Your task to perform on an android device: find which apps use the phone's location Image 0: 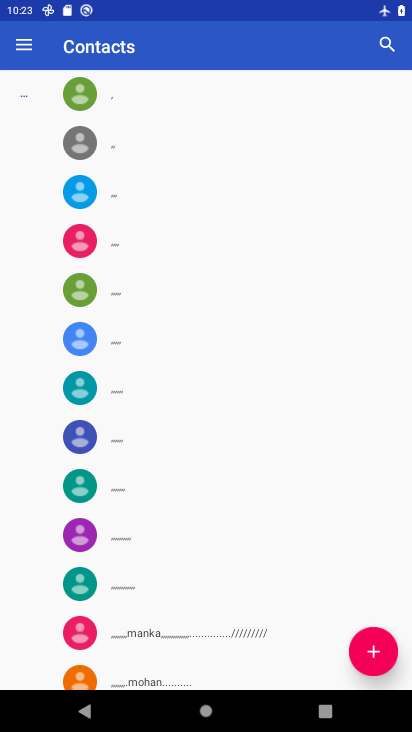
Step 0: press back button
Your task to perform on an android device: find which apps use the phone's location Image 1: 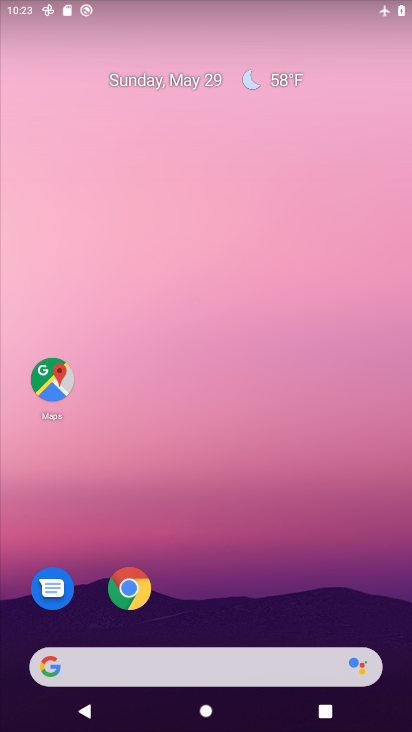
Step 1: drag from (209, 503) to (161, 104)
Your task to perform on an android device: find which apps use the phone's location Image 2: 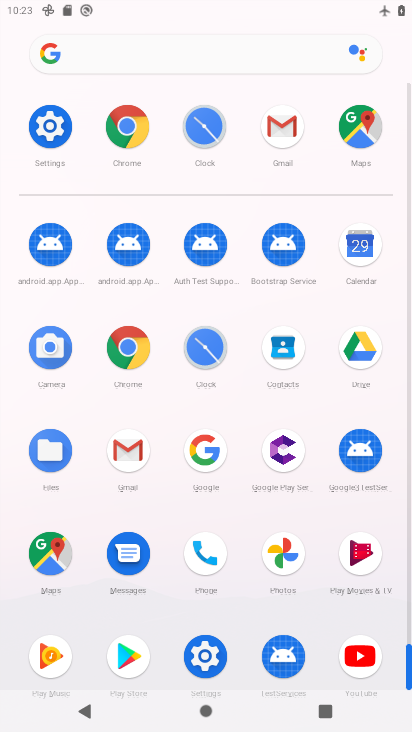
Step 2: click (212, 654)
Your task to perform on an android device: find which apps use the phone's location Image 3: 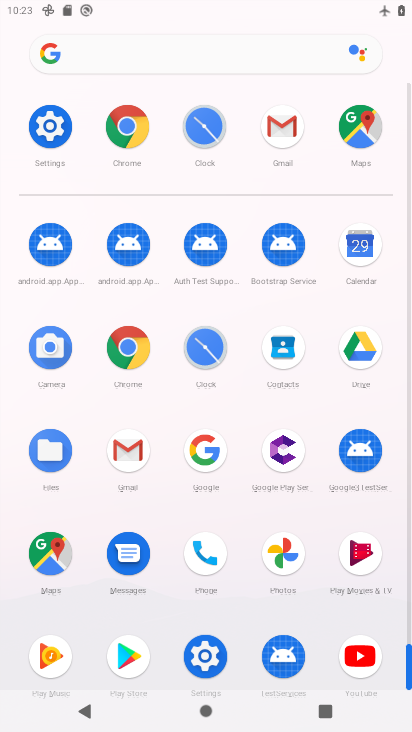
Step 3: click (212, 654)
Your task to perform on an android device: find which apps use the phone's location Image 4: 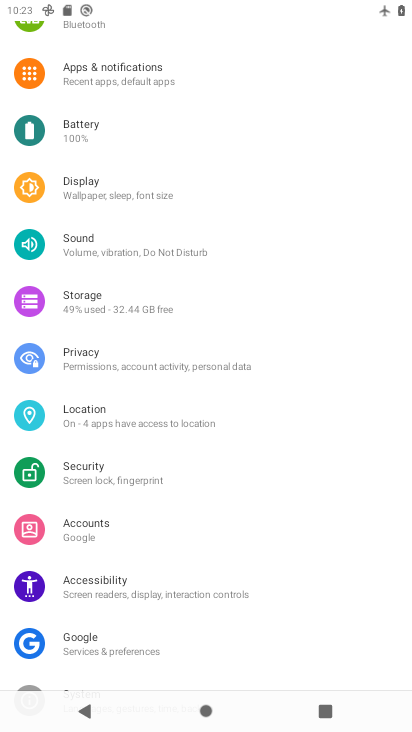
Step 4: click (212, 654)
Your task to perform on an android device: find which apps use the phone's location Image 5: 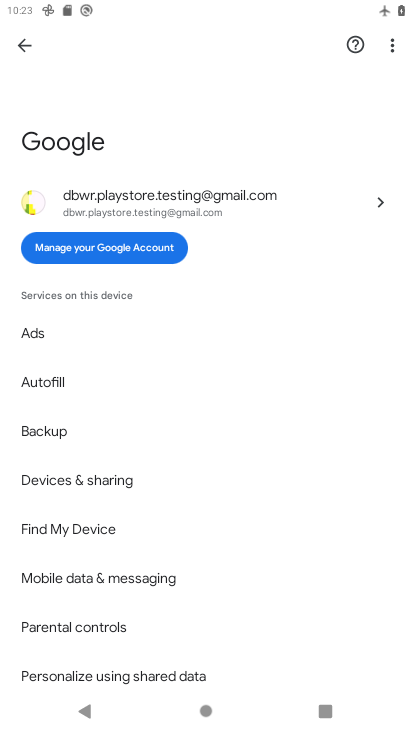
Step 5: press back button
Your task to perform on an android device: find which apps use the phone's location Image 6: 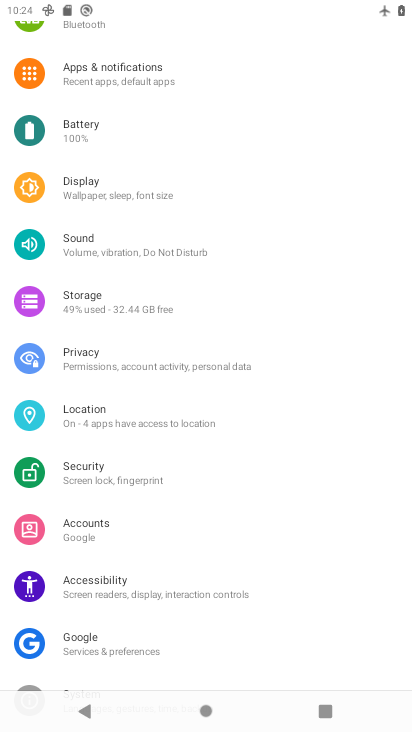
Step 6: click (79, 424)
Your task to perform on an android device: find which apps use the phone's location Image 7: 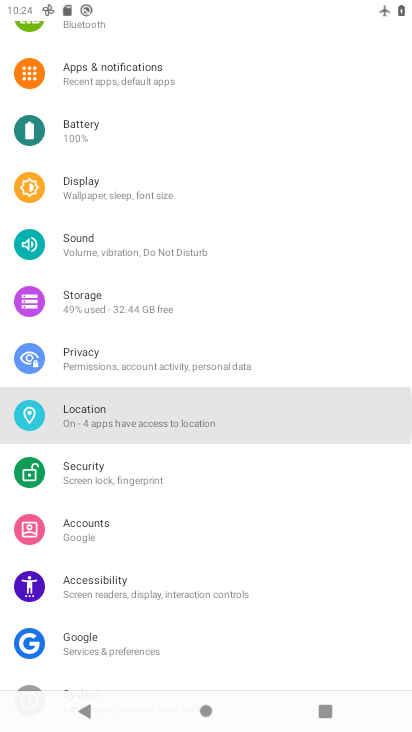
Step 7: click (83, 416)
Your task to perform on an android device: find which apps use the phone's location Image 8: 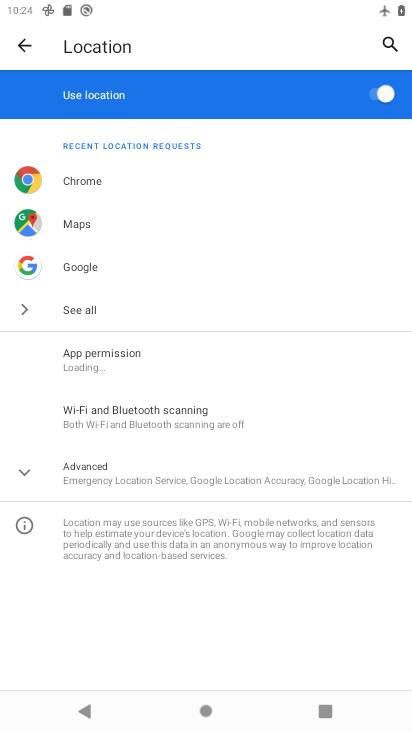
Step 8: click (83, 351)
Your task to perform on an android device: find which apps use the phone's location Image 9: 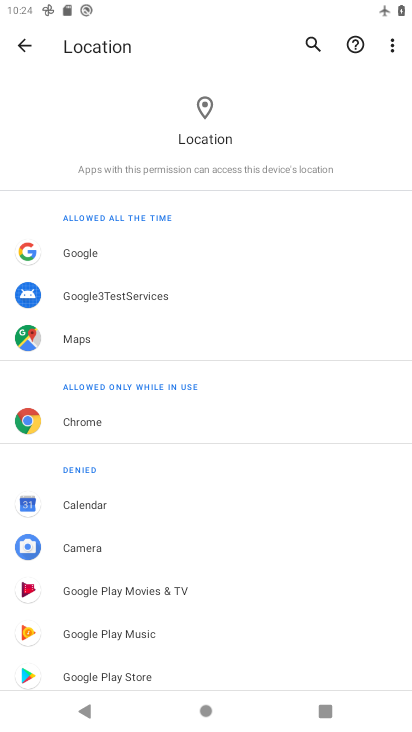
Step 9: task complete